Your task to perform on an android device: turn off notifications in google photos Image 0: 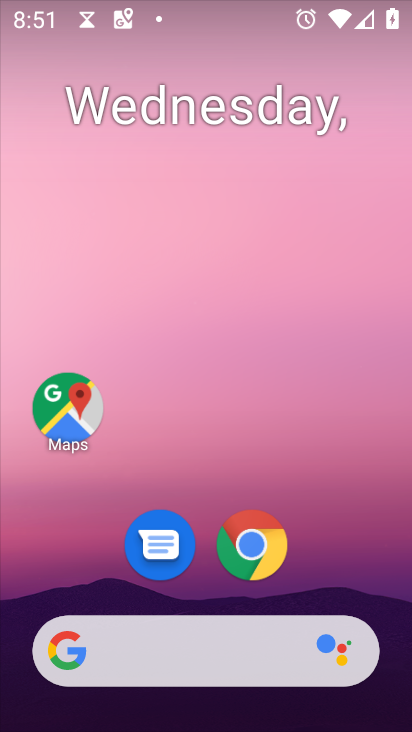
Step 0: drag from (197, 611) to (322, 181)
Your task to perform on an android device: turn off notifications in google photos Image 1: 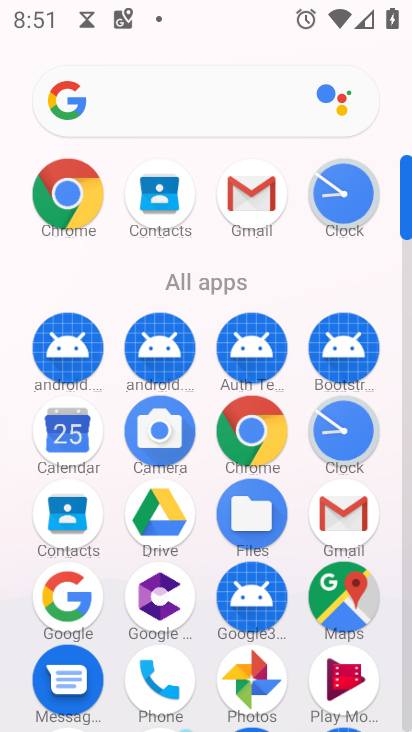
Step 1: drag from (193, 604) to (306, 361)
Your task to perform on an android device: turn off notifications in google photos Image 2: 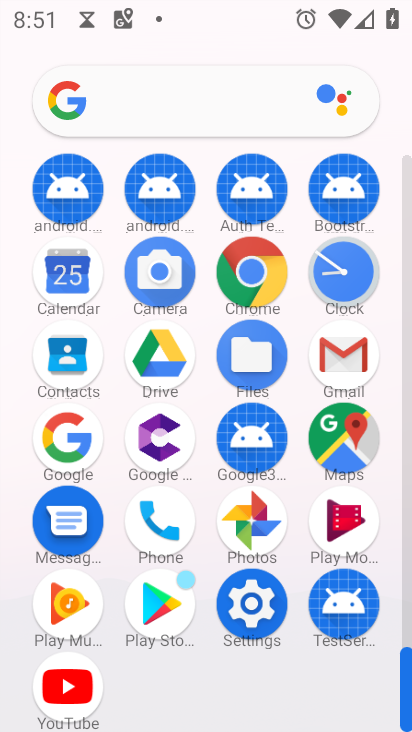
Step 2: click (243, 521)
Your task to perform on an android device: turn off notifications in google photos Image 3: 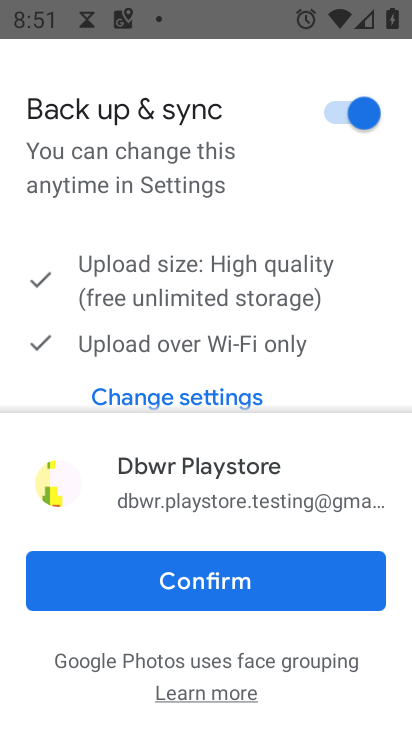
Step 3: click (245, 578)
Your task to perform on an android device: turn off notifications in google photos Image 4: 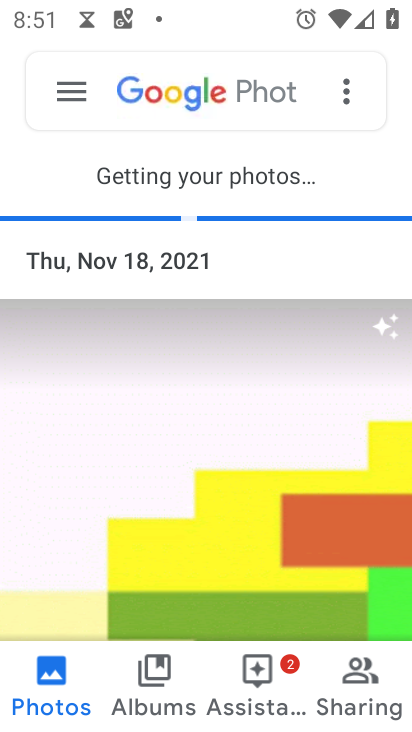
Step 4: click (77, 96)
Your task to perform on an android device: turn off notifications in google photos Image 5: 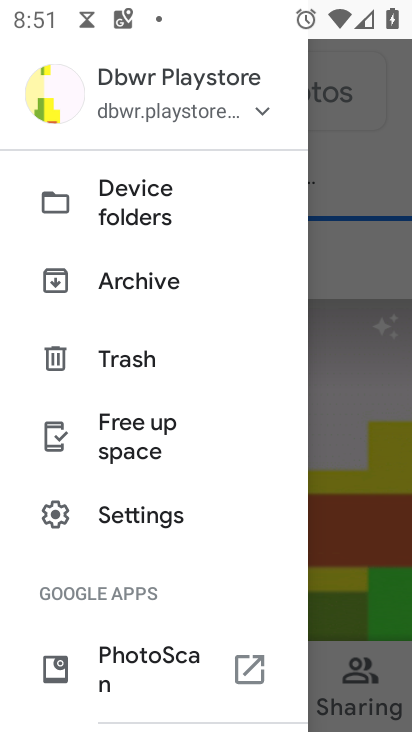
Step 5: click (153, 519)
Your task to perform on an android device: turn off notifications in google photos Image 6: 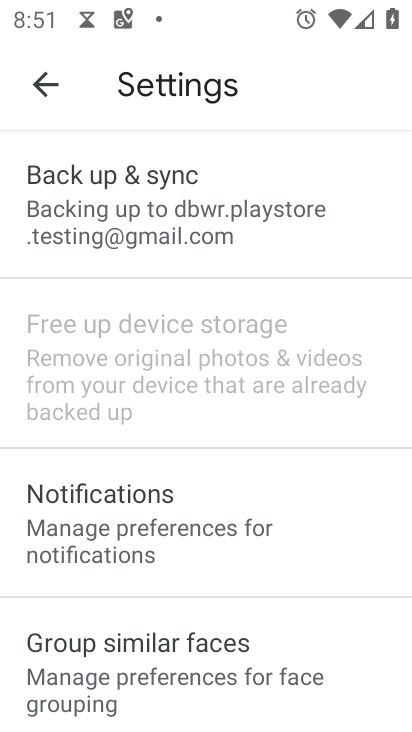
Step 6: click (153, 519)
Your task to perform on an android device: turn off notifications in google photos Image 7: 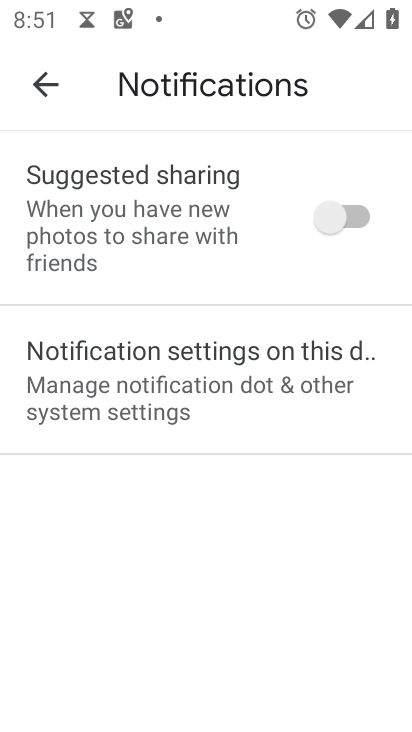
Step 7: click (204, 360)
Your task to perform on an android device: turn off notifications in google photos Image 8: 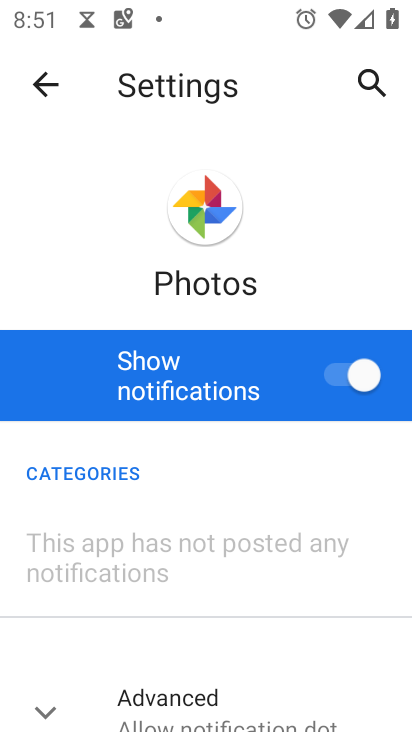
Step 8: click (329, 377)
Your task to perform on an android device: turn off notifications in google photos Image 9: 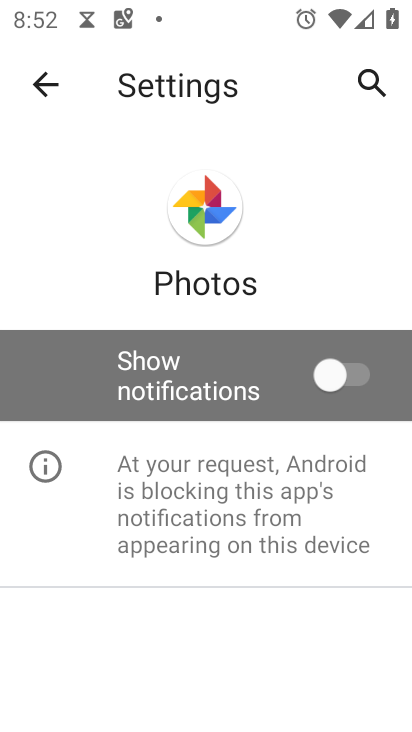
Step 9: task complete